Your task to perform on an android device: toggle notification dots Image 0: 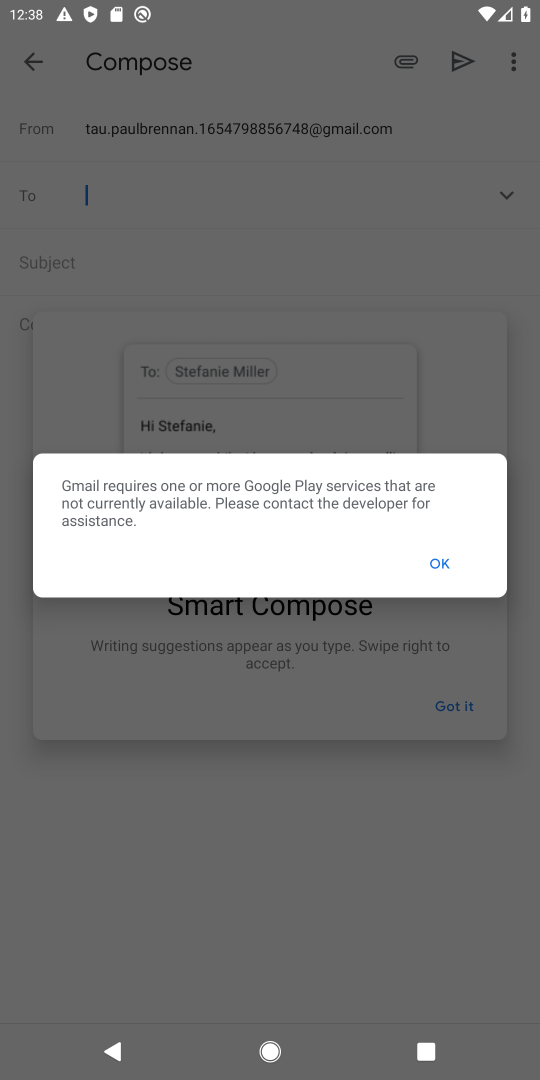
Step 0: press home button
Your task to perform on an android device: toggle notification dots Image 1: 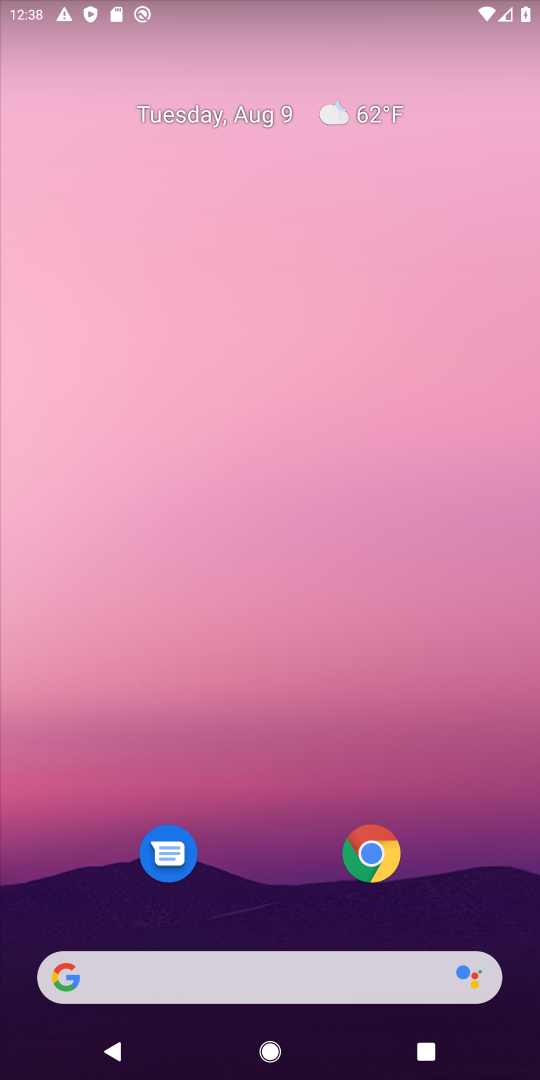
Step 1: drag from (291, 828) to (288, 177)
Your task to perform on an android device: toggle notification dots Image 2: 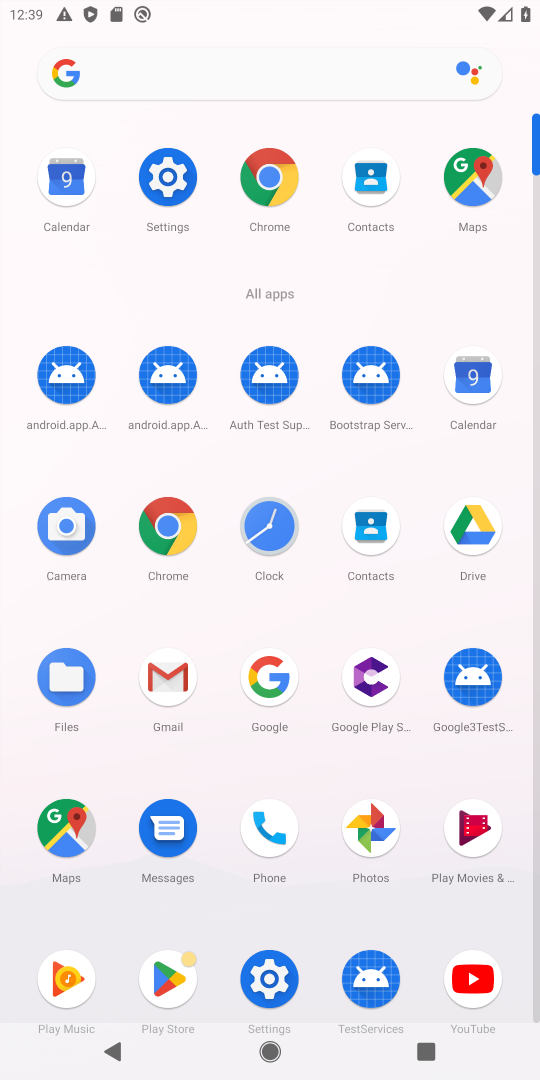
Step 2: click (158, 179)
Your task to perform on an android device: toggle notification dots Image 3: 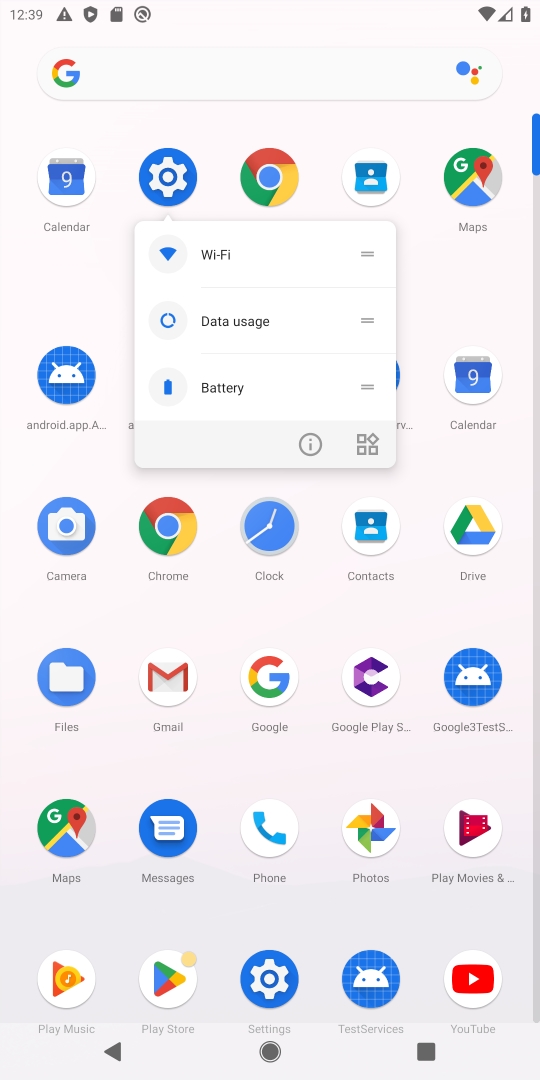
Step 3: click (152, 175)
Your task to perform on an android device: toggle notification dots Image 4: 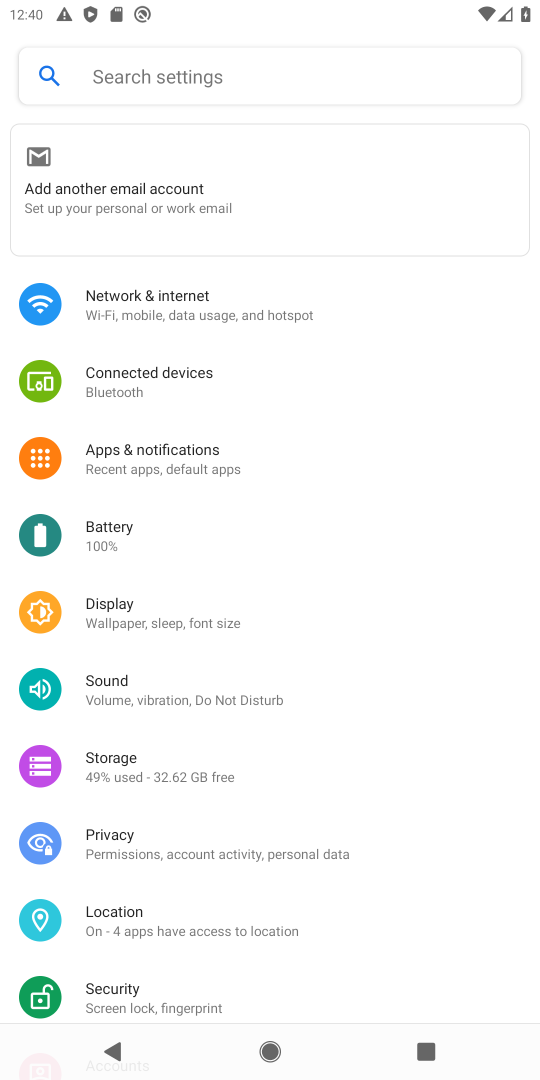
Step 4: click (163, 457)
Your task to perform on an android device: toggle notification dots Image 5: 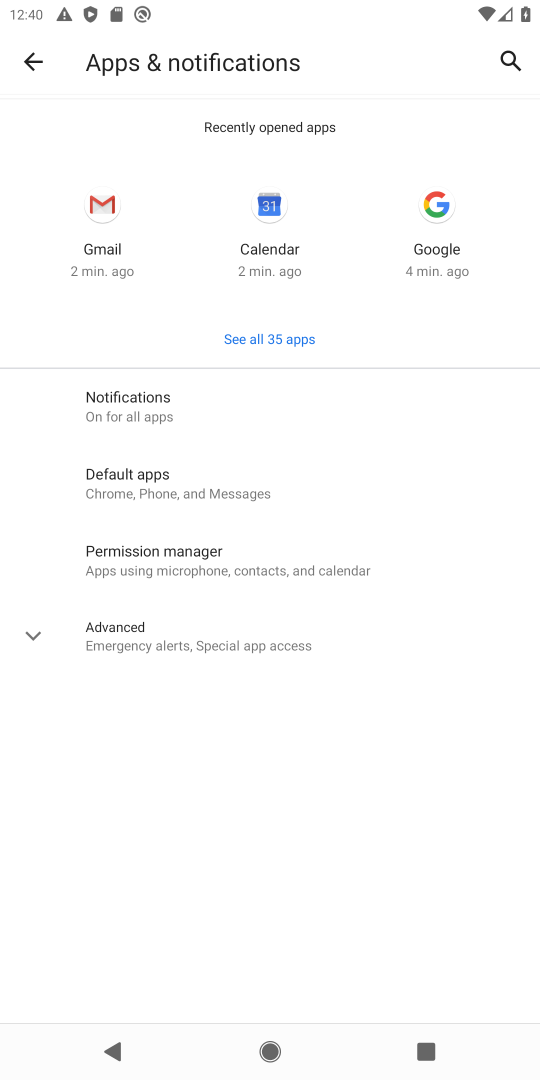
Step 5: click (197, 409)
Your task to perform on an android device: toggle notification dots Image 6: 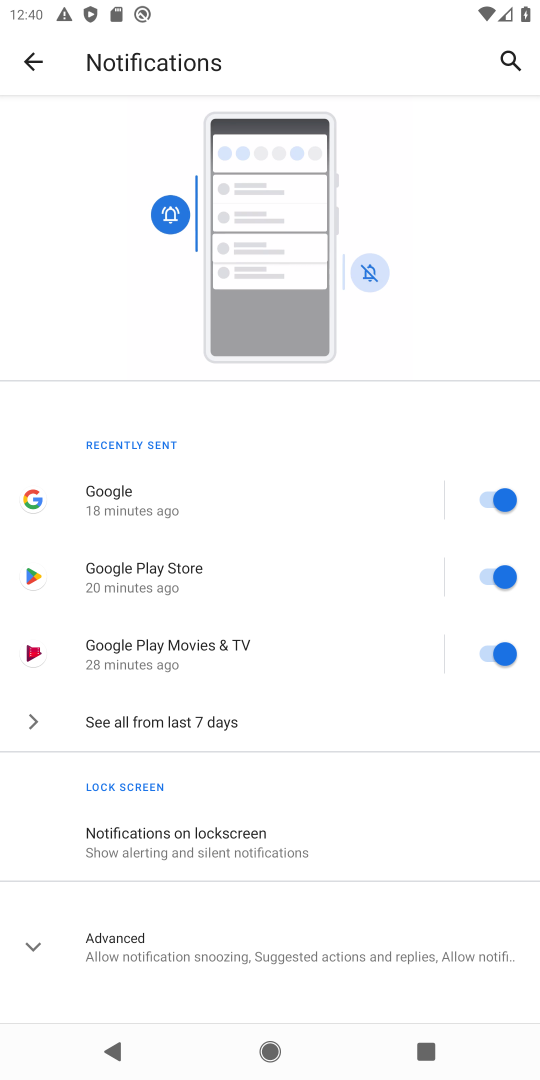
Step 6: click (155, 209)
Your task to perform on an android device: toggle notification dots Image 7: 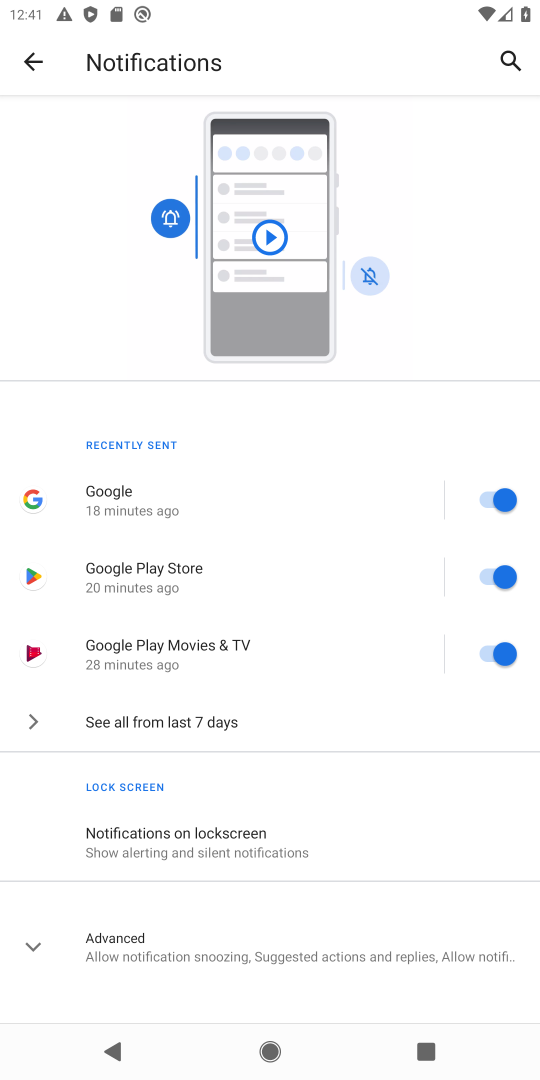
Step 7: click (35, 943)
Your task to perform on an android device: toggle notification dots Image 8: 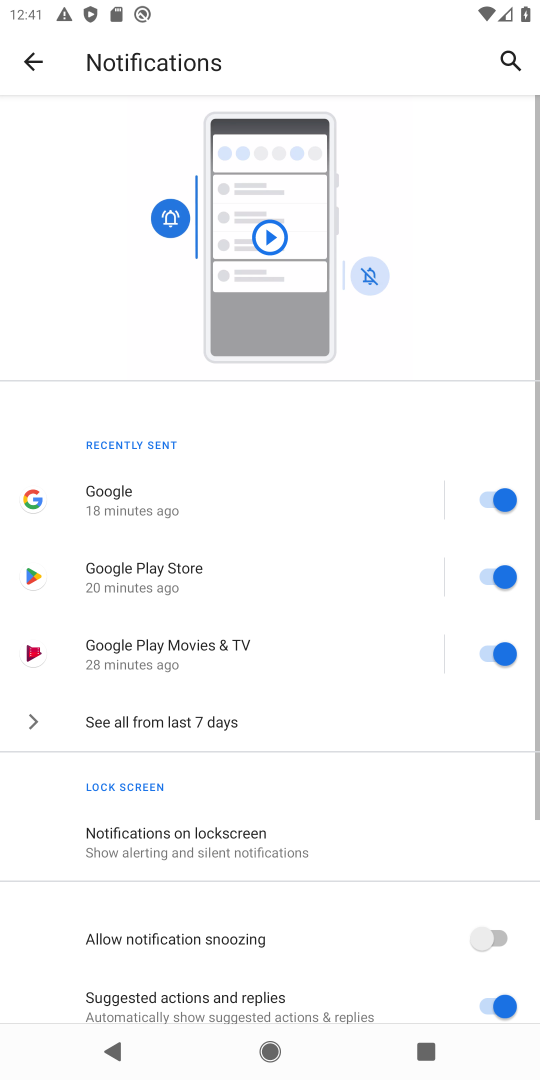
Step 8: drag from (387, 731) to (373, 230)
Your task to perform on an android device: toggle notification dots Image 9: 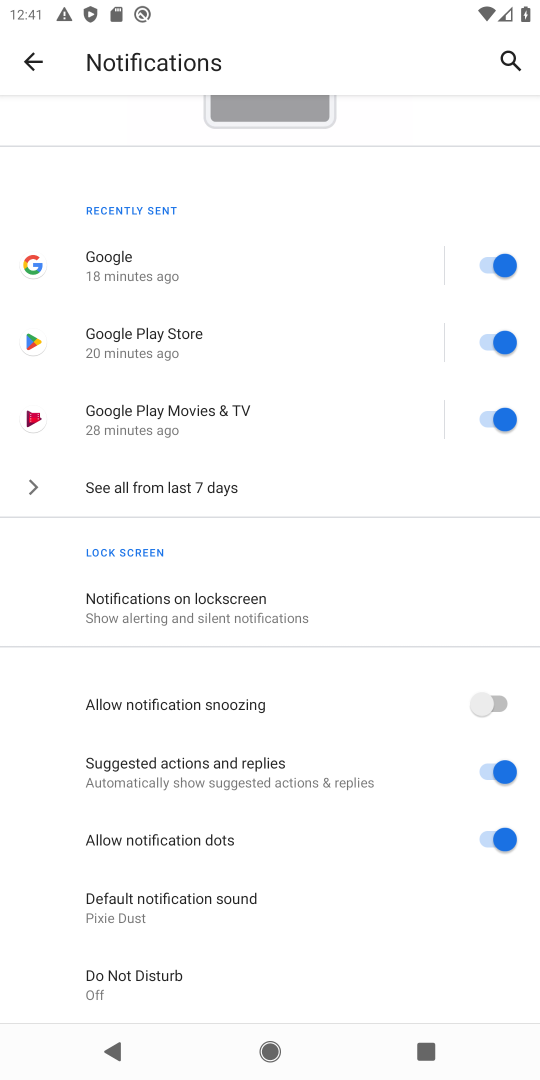
Step 9: click (505, 829)
Your task to perform on an android device: toggle notification dots Image 10: 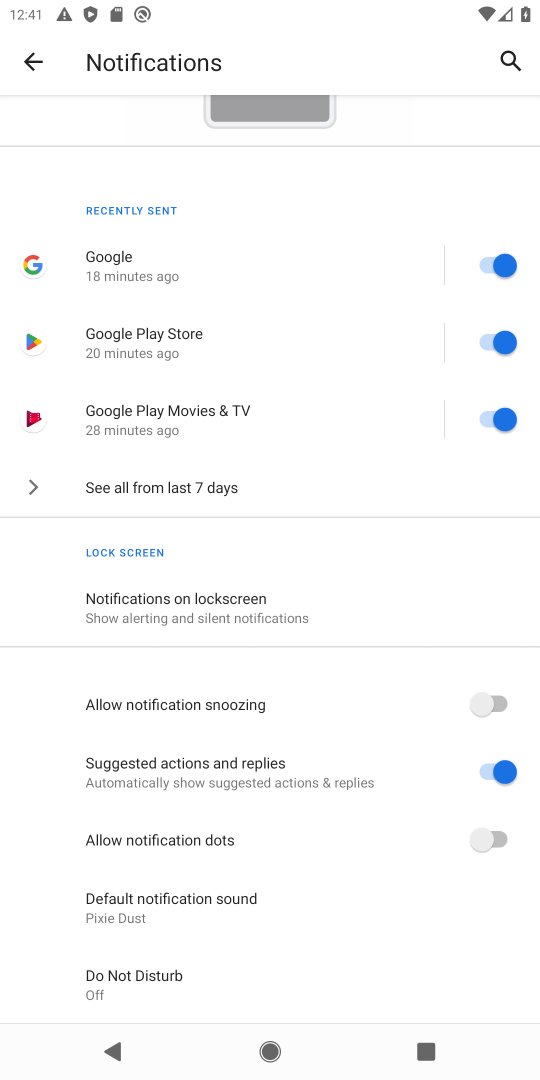
Step 10: task complete